Your task to perform on an android device: open device folders in google photos Image 0: 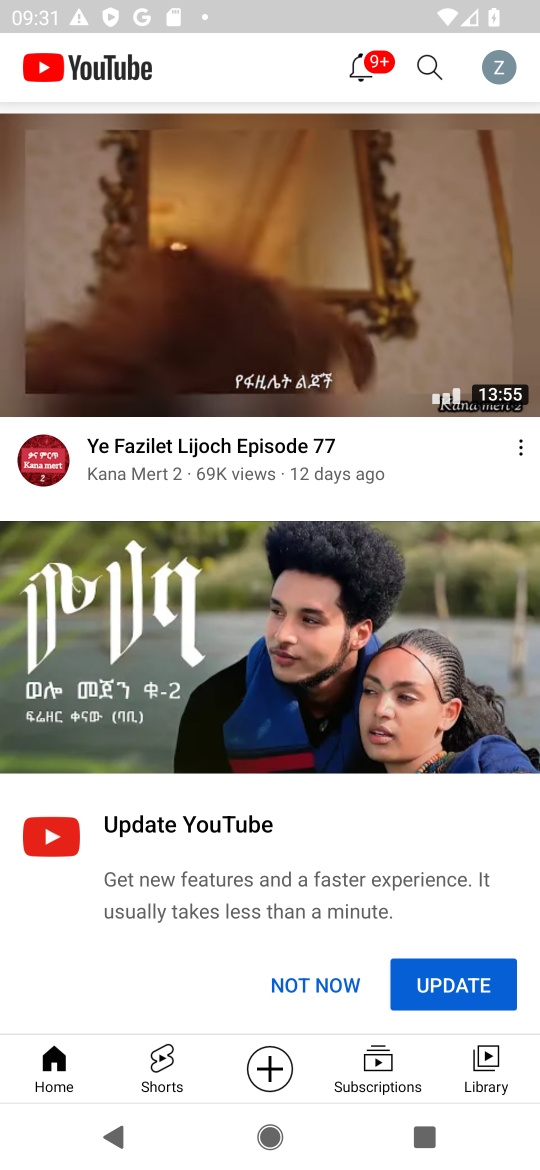
Step 0: press home button
Your task to perform on an android device: open device folders in google photos Image 1: 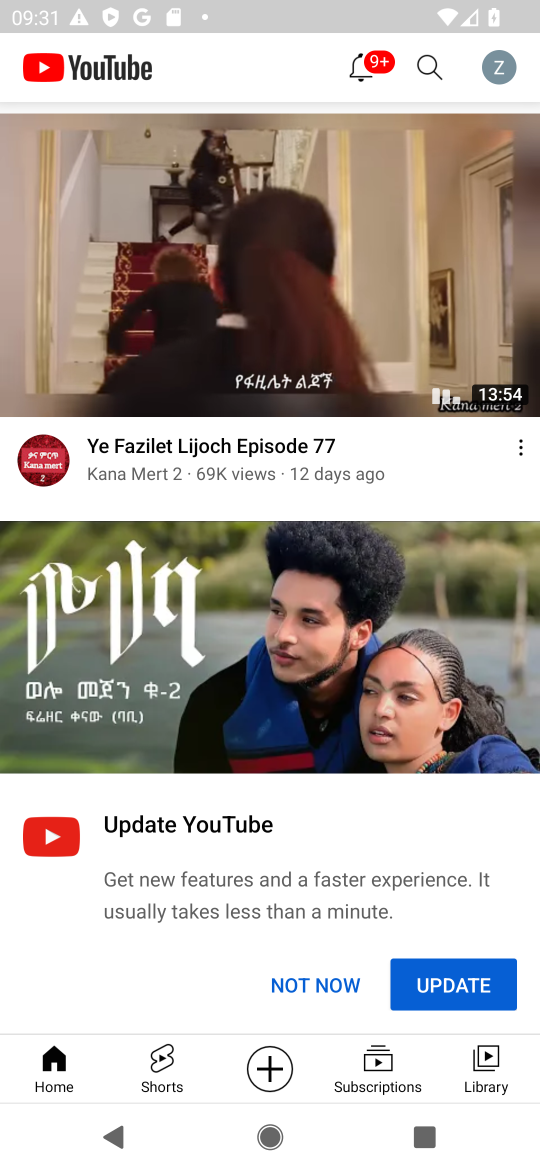
Step 1: press home button
Your task to perform on an android device: open device folders in google photos Image 2: 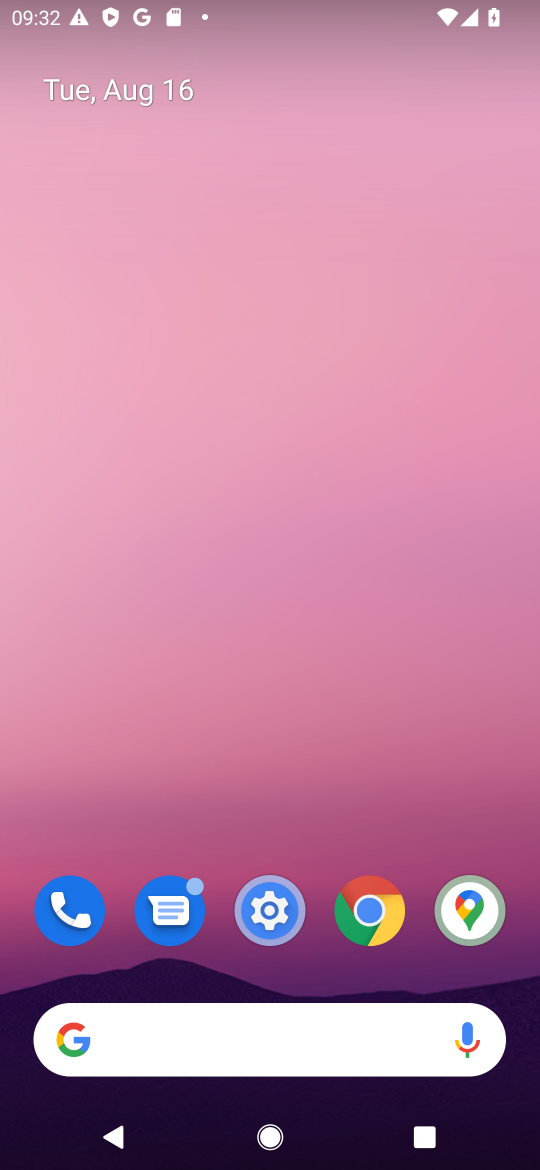
Step 2: drag from (256, 805) to (340, 0)
Your task to perform on an android device: open device folders in google photos Image 3: 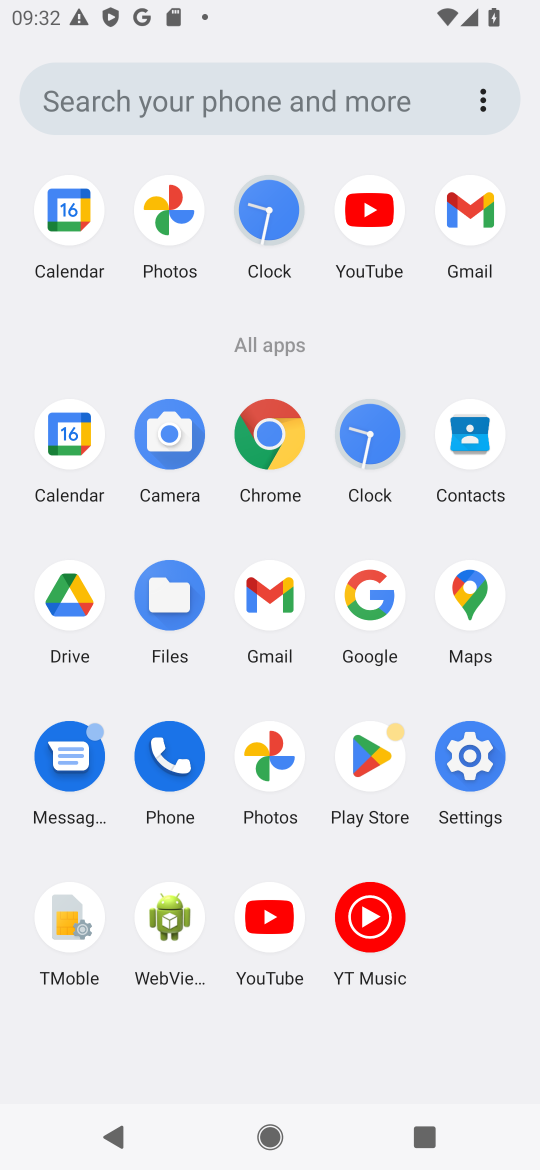
Step 3: click (272, 760)
Your task to perform on an android device: open device folders in google photos Image 4: 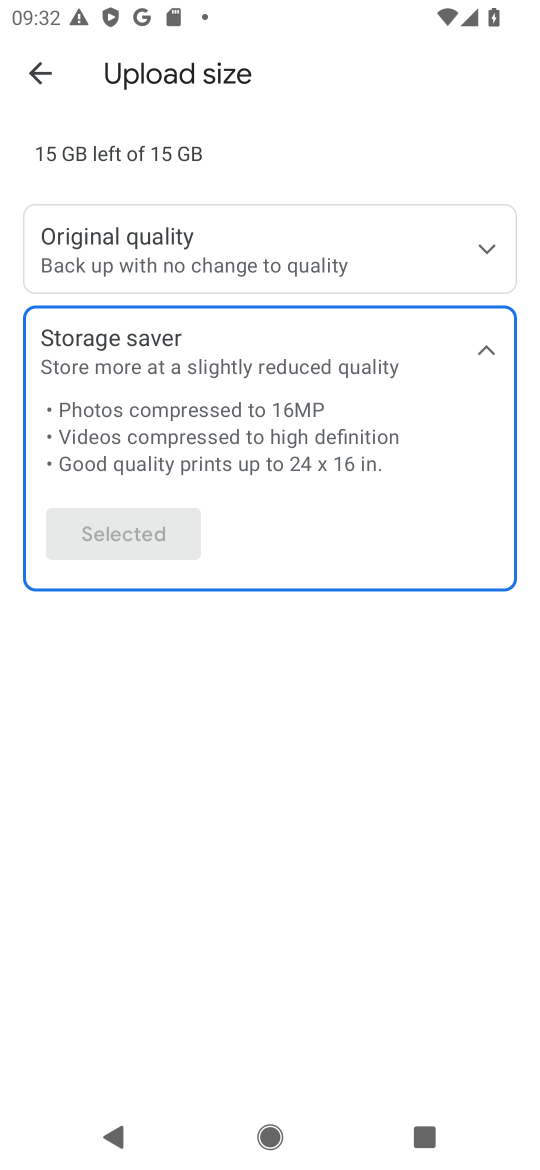
Step 4: click (37, 63)
Your task to perform on an android device: open device folders in google photos Image 5: 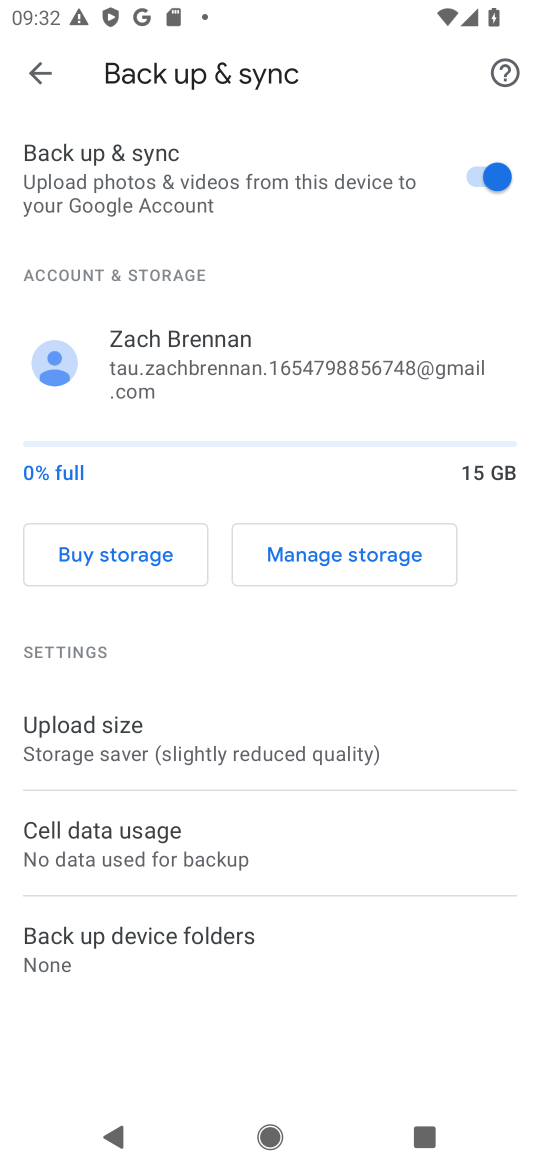
Step 5: click (39, 66)
Your task to perform on an android device: open device folders in google photos Image 6: 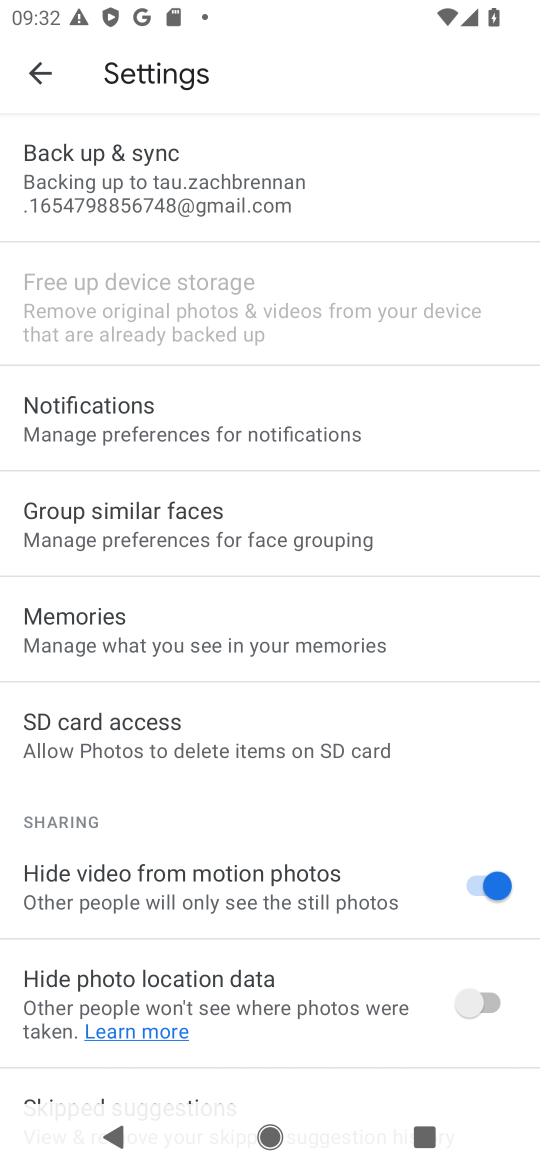
Step 6: click (39, 66)
Your task to perform on an android device: open device folders in google photos Image 7: 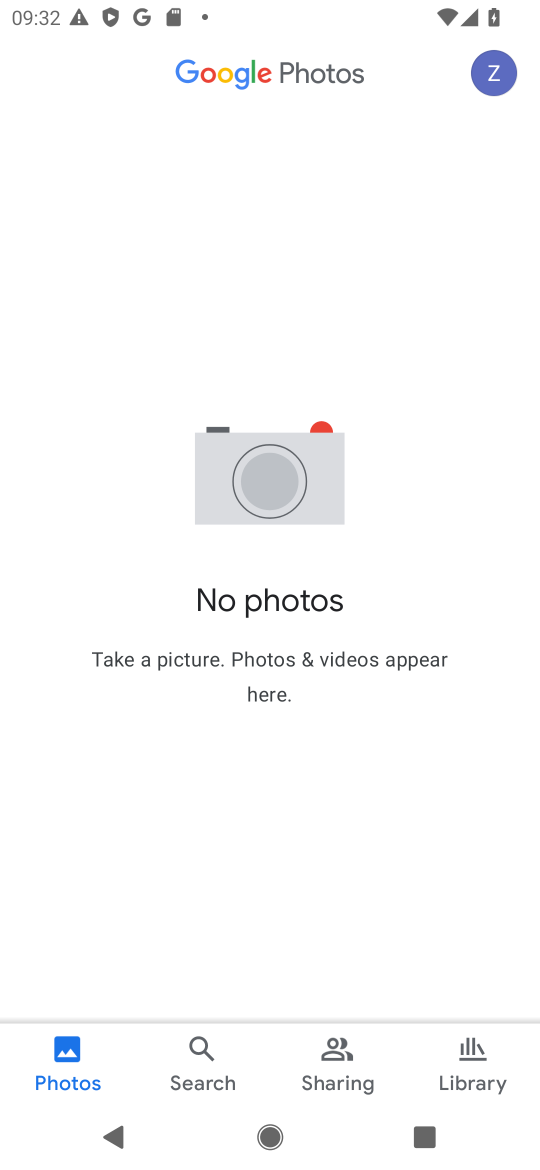
Step 7: click (279, 64)
Your task to perform on an android device: open device folders in google photos Image 8: 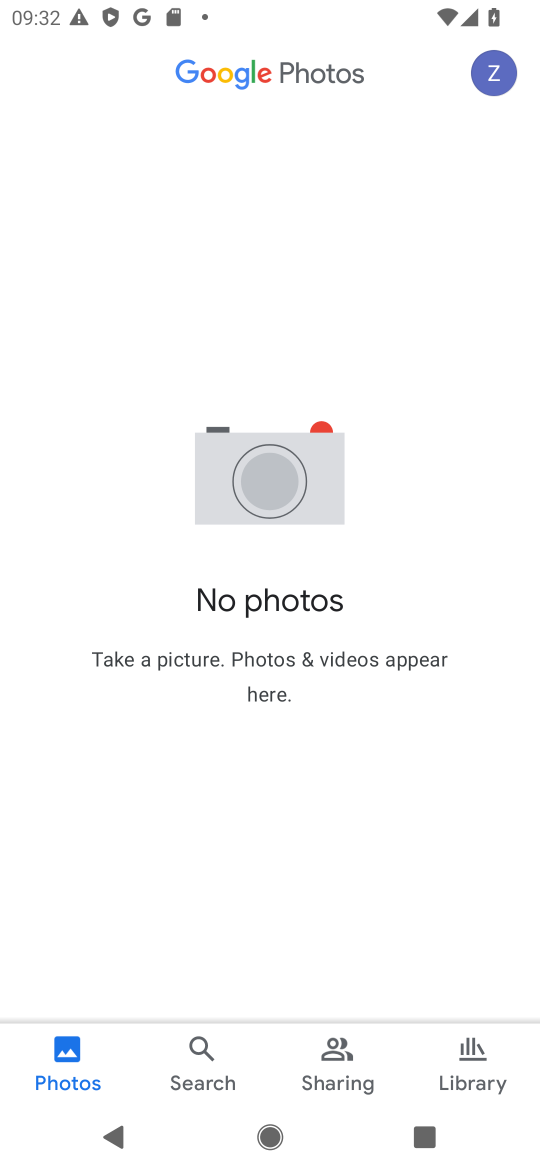
Step 8: click (203, 1051)
Your task to perform on an android device: open device folders in google photos Image 9: 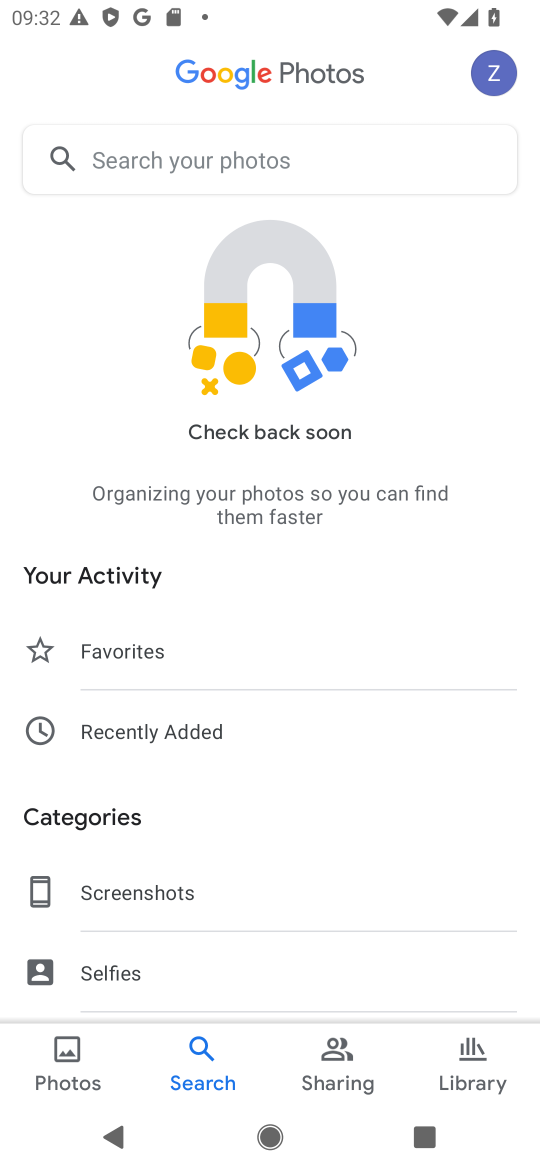
Step 9: drag from (352, 868) to (337, 104)
Your task to perform on an android device: open device folders in google photos Image 10: 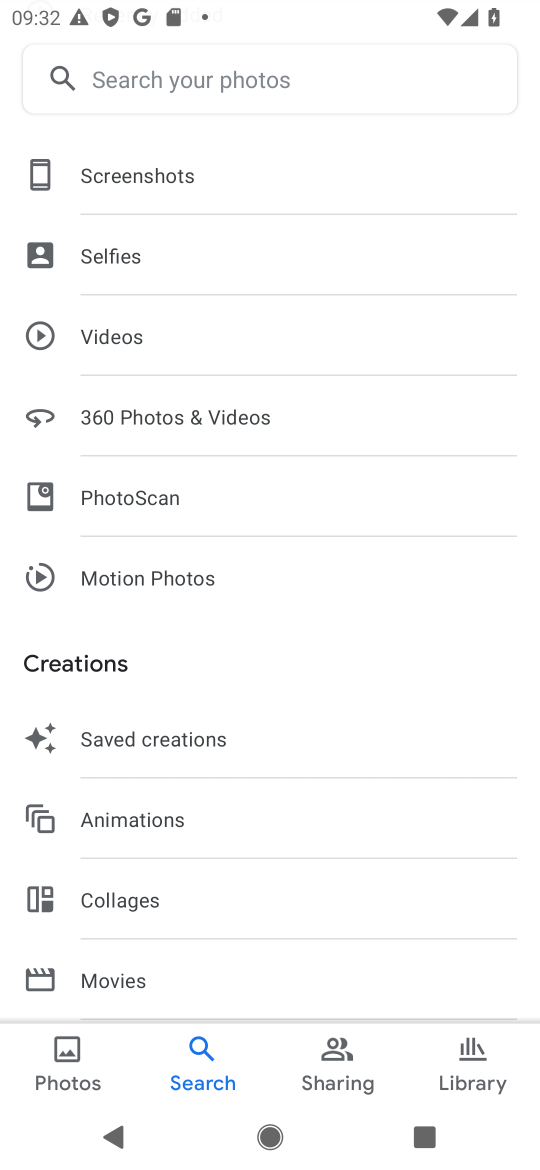
Step 10: drag from (296, 584) to (309, 109)
Your task to perform on an android device: open device folders in google photos Image 11: 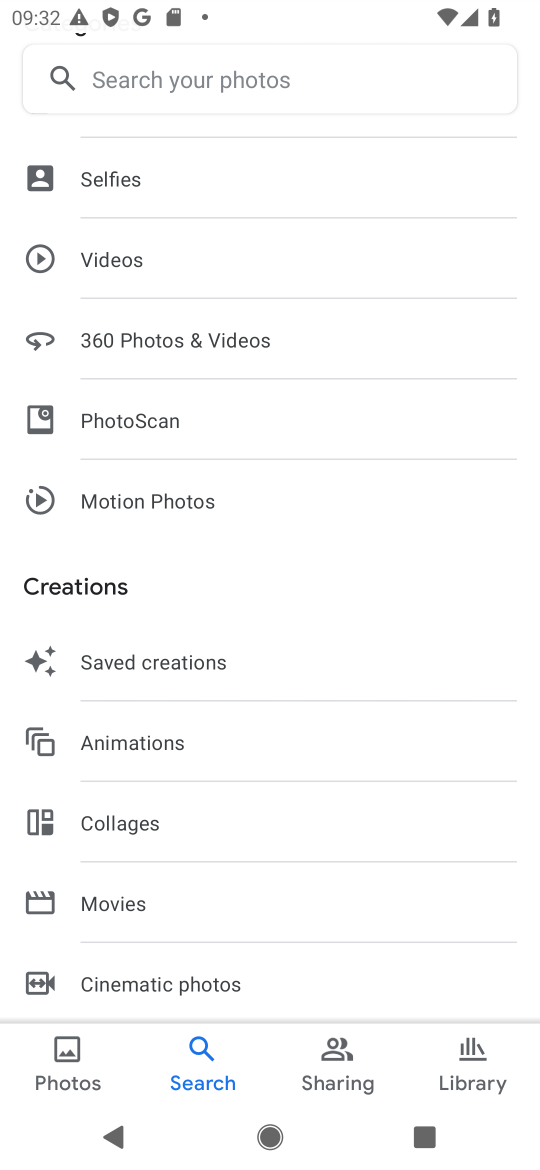
Step 11: type "device folder"
Your task to perform on an android device: open device folders in google photos Image 12: 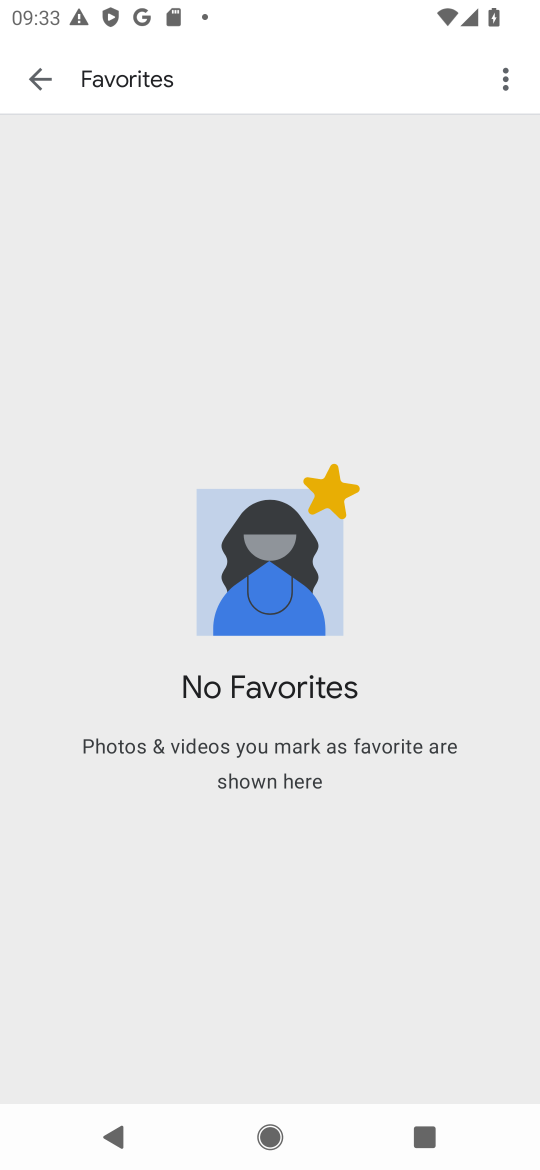
Step 12: click (38, 74)
Your task to perform on an android device: open device folders in google photos Image 13: 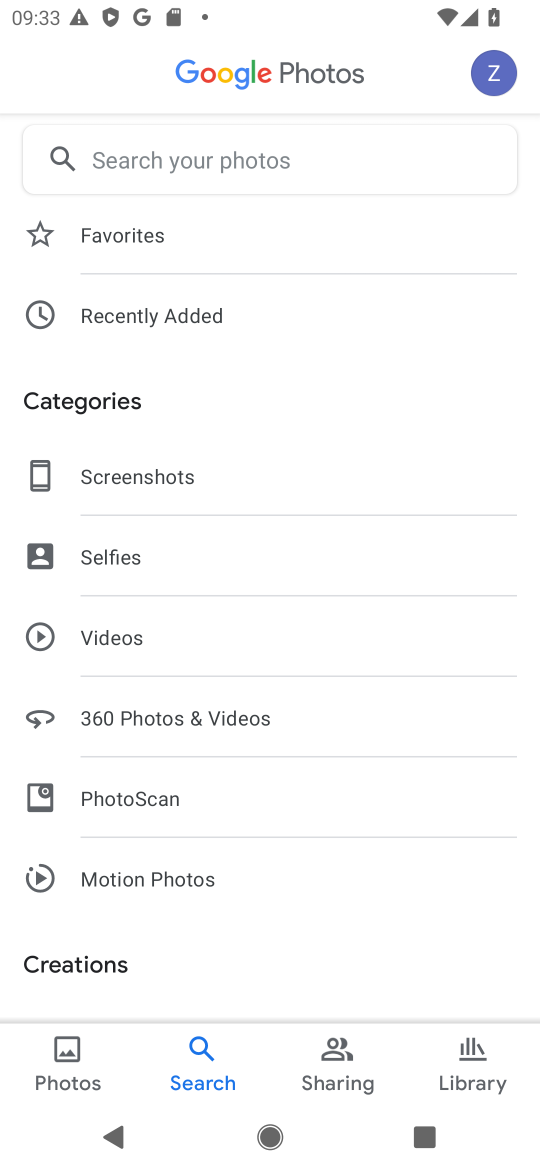
Step 13: click (128, 166)
Your task to perform on an android device: open device folders in google photos Image 14: 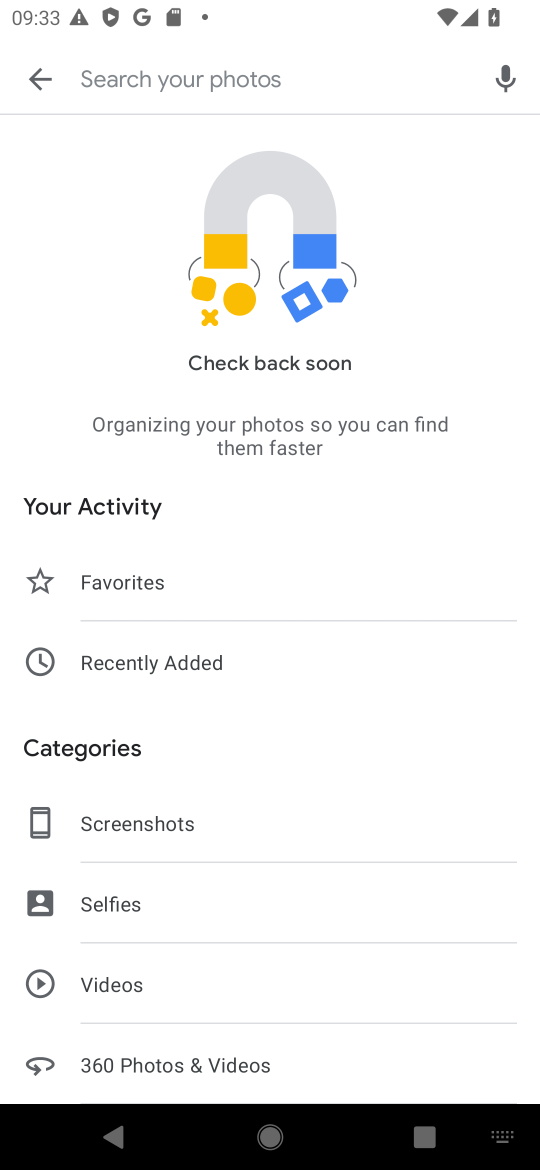
Step 14: type "device folder"
Your task to perform on an android device: open device folders in google photos Image 15: 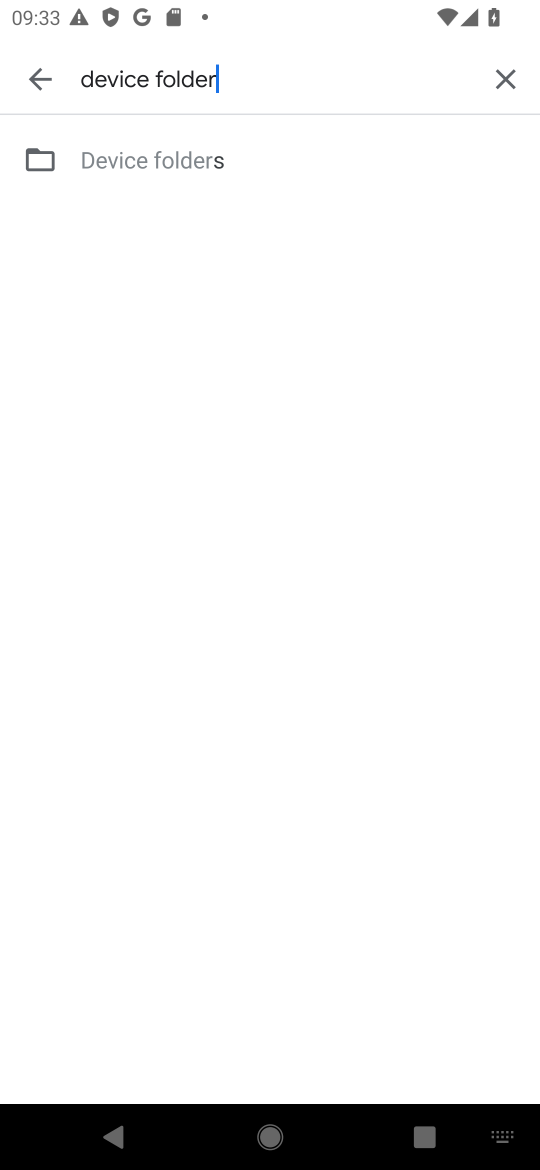
Step 15: click (184, 164)
Your task to perform on an android device: open device folders in google photos Image 16: 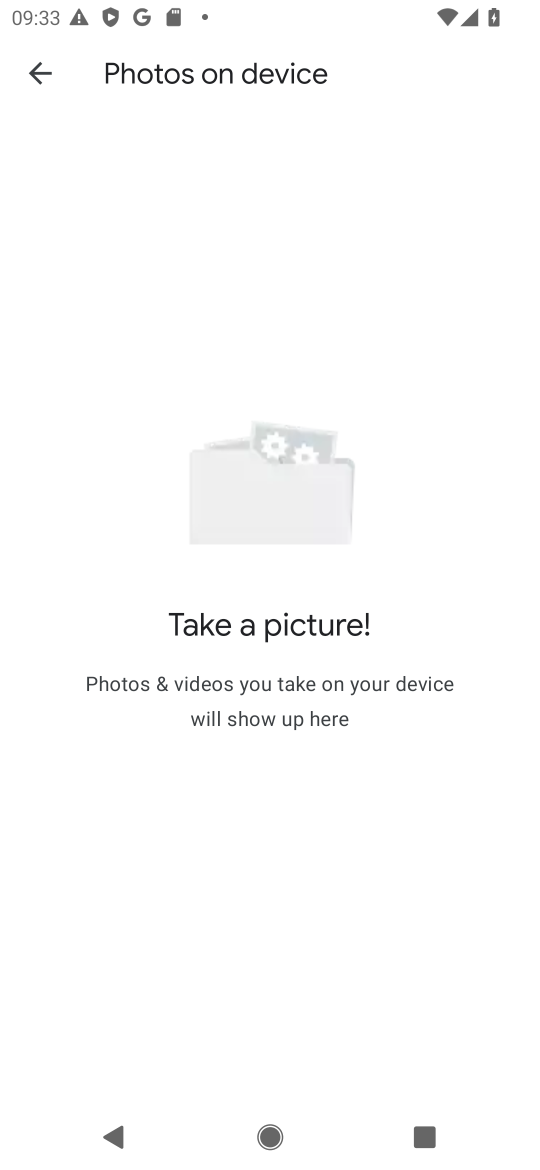
Step 16: task complete